Your task to perform on an android device: add a contact Image 0: 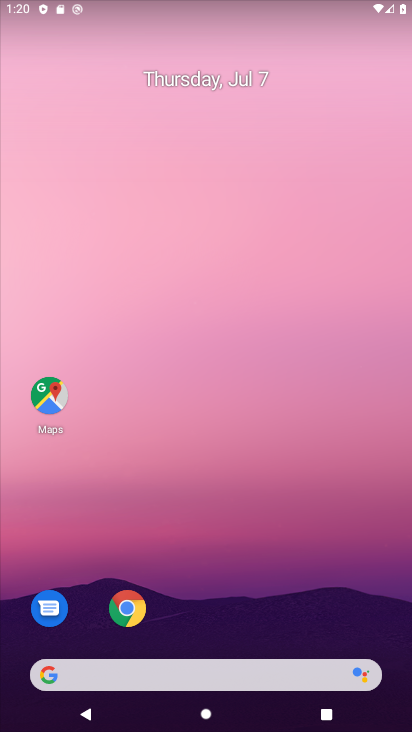
Step 0: drag from (216, 708) to (326, 16)
Your task to perform on an android device: add a contact Image 1: 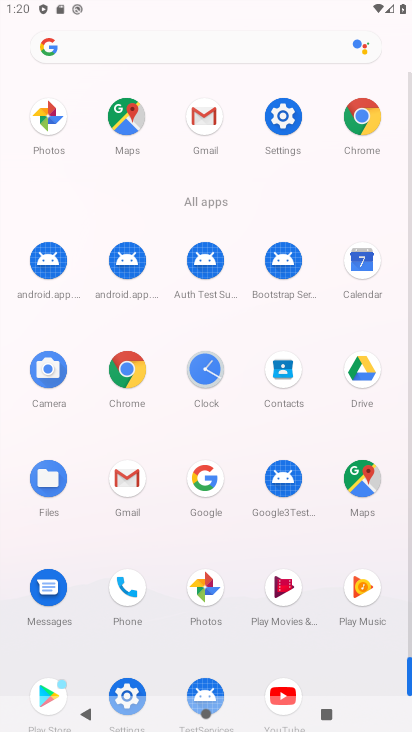
Step 1: click (290, 374)
Your task to perform on an android device: add a contact Image 2: 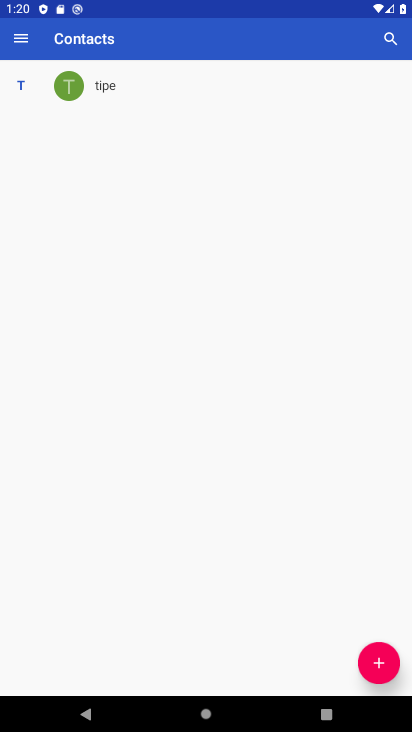
Step 2: press back button
Your task to perform on an android device: add a contact Image 3: 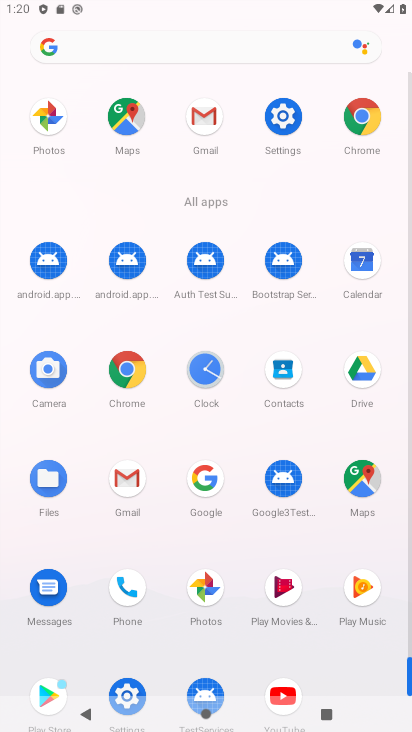
Step 3: click (296, 373)
Your task to perform on an android device: add a contact Image 4: 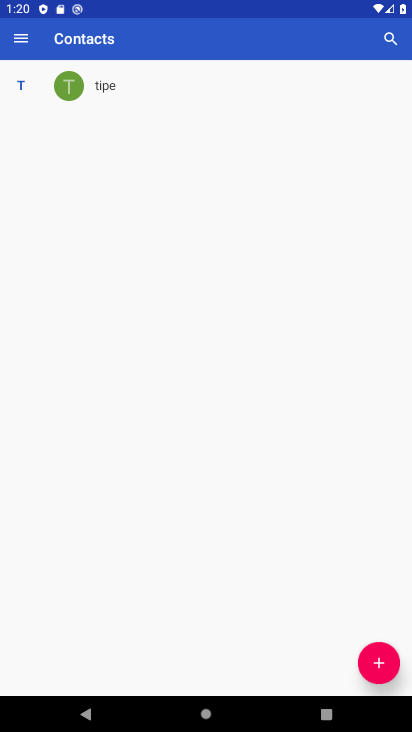
Step 4: click (25, 41)
Your task to perform on an android device: add a contact Image 5: 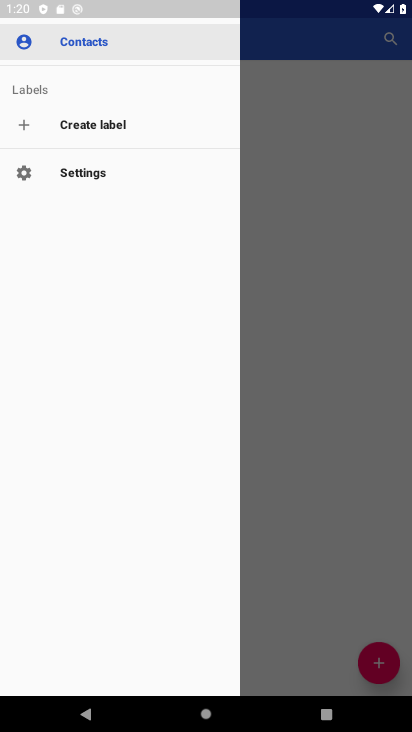
Step 5: click (312, 346)
Your task to perform on an android device: add a contact Image 6: 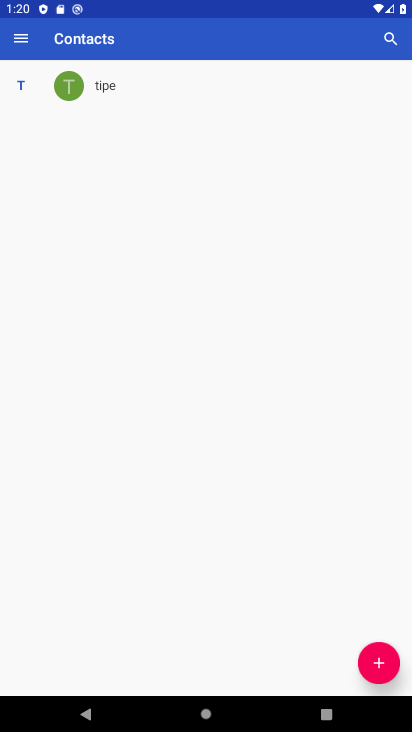
Step 6: task complete